Your task to perform on an android device: Is it going to rain this weekend? Image 0: 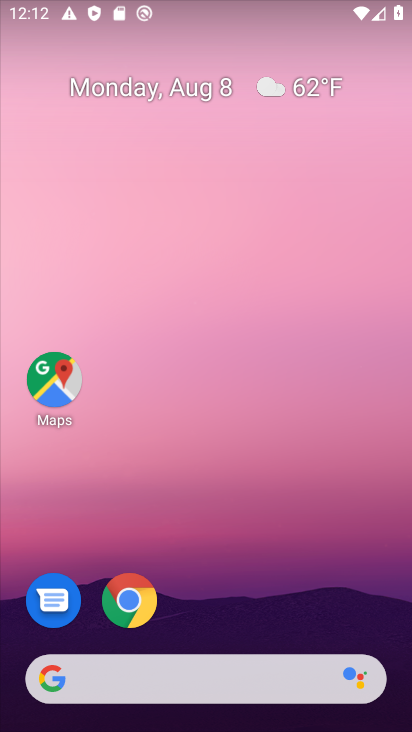
Step 0: drag from (226, 627) to (195, 235)
Your task to perform on an android device: Is it going to rain this weekend? Image 1: 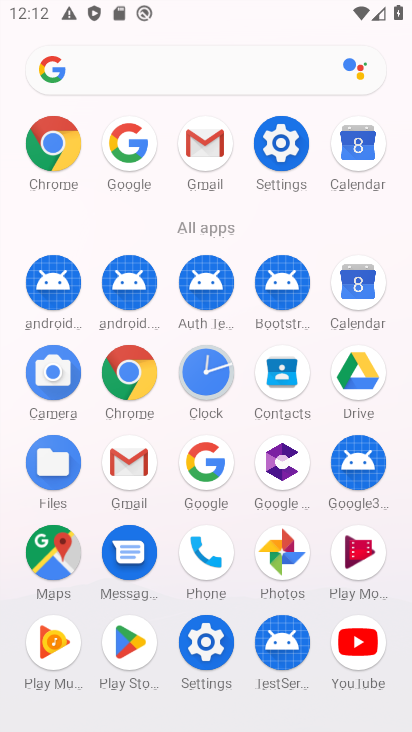
Step 1: click (197, 444)
Your task to perform on an android device: Is it going to rain this weekend? Image 2: 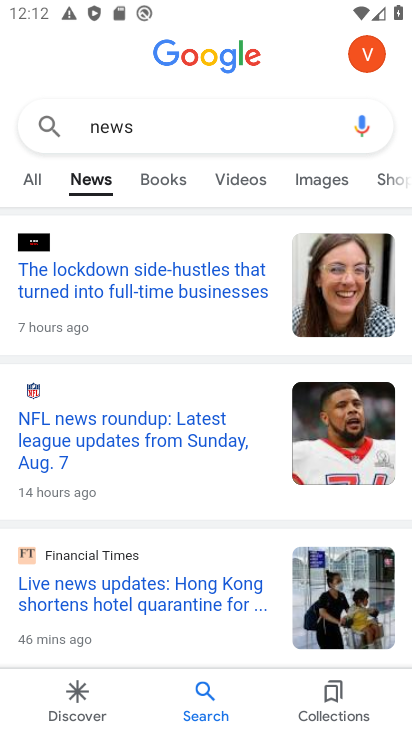
Step 2: click (177, 131)
Your task to perform on an android device: Is it going to rain this weekend? Image 3: 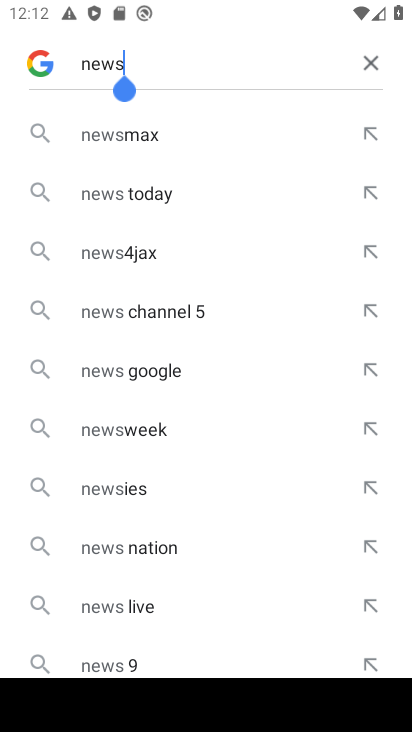
Step 3: click (365, 50)
Your task to perform on an android device: Is it going to rain this weekend? Image 4: 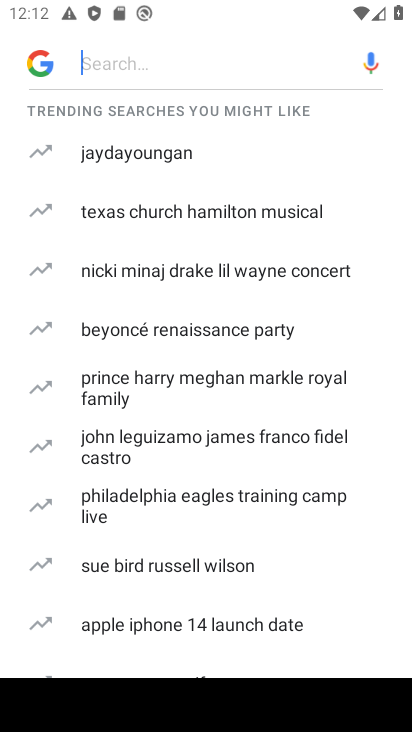
Step 4: type "weather"
Your task to perform on an android device: Is it going to rain this weekend? Image 5: 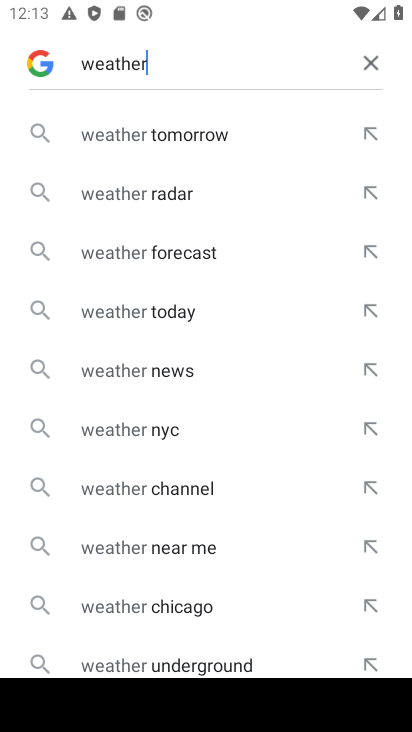
Step 5: click (222, 139)
Your task to perform on an android device: Is it going to rain this weekend? Image 6: 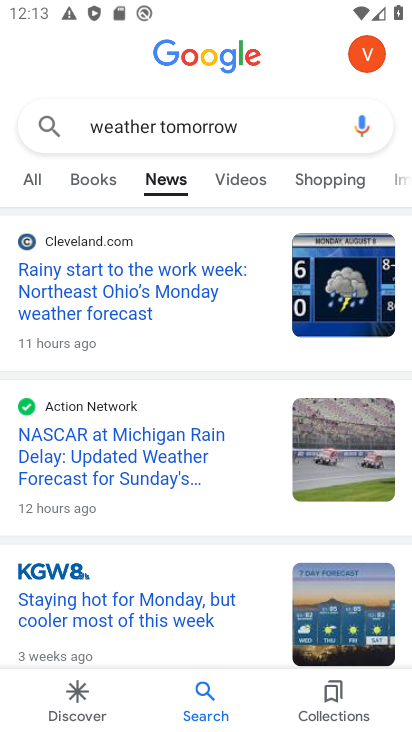
Step 6: click (45, 174)
Your task to perform on an android device: Is it going to rain this weekend? Image 7: 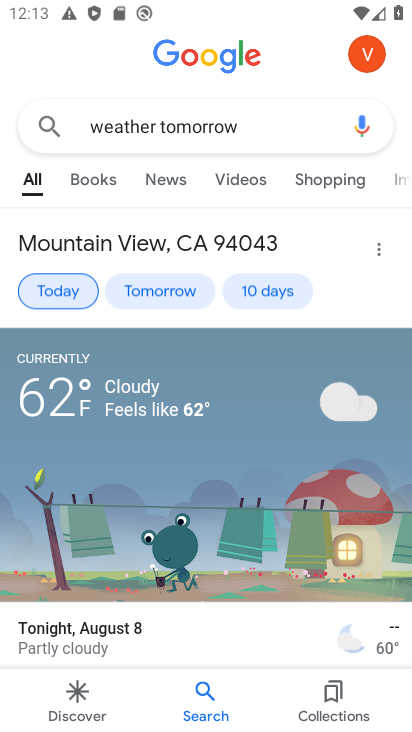
Step 7: click (262, 290)
Your task to perform on an android device: Is it going to rain this weekend? Image 8: 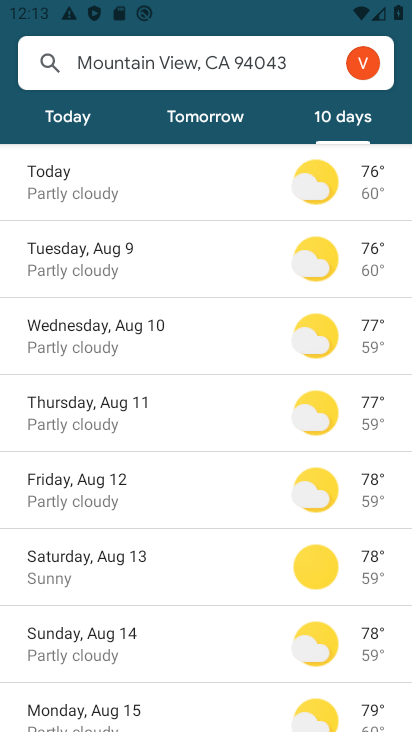
Step 8: task complete